Your task to perform on an android device: Open Android settings Image 0: 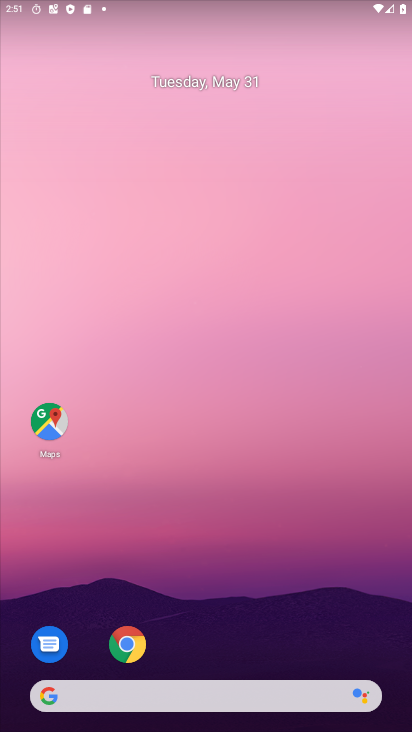
Step 0: drag from (392, 695) to (314, 20)
Your task to perform on an android device: Open Android settings Image 1: 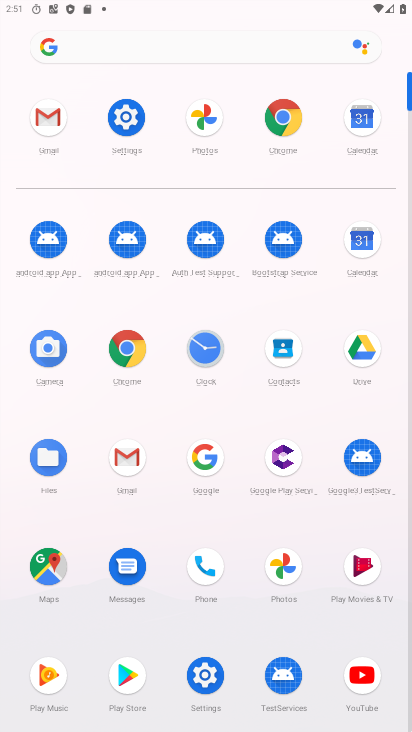
Step 1: click (202, 676)
Your task to perform on an android device: Open Android settings Image 2: 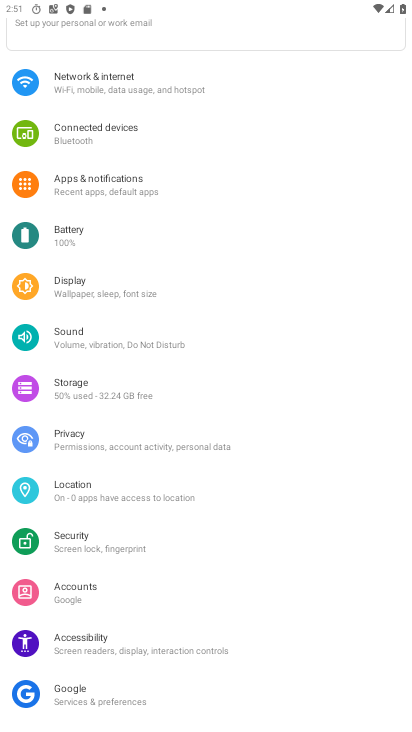
Step 2: task complete